Your task to perform on an android device: see tabs open on other devices in the chrome app Image 0: 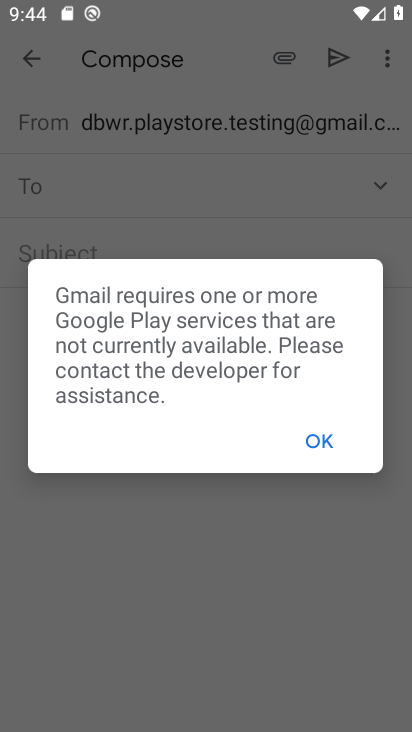
Step 0: click (311, 437)
Your task to perform on an android device: see tabs open on other devices in the chrome app Image 1: 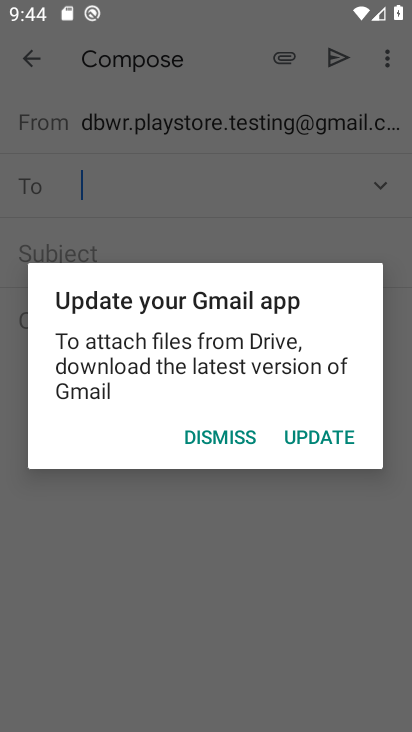
Step 1: press home button
Your task to perform on an android device: see tabs open on other devices in the chrome app Image 2: 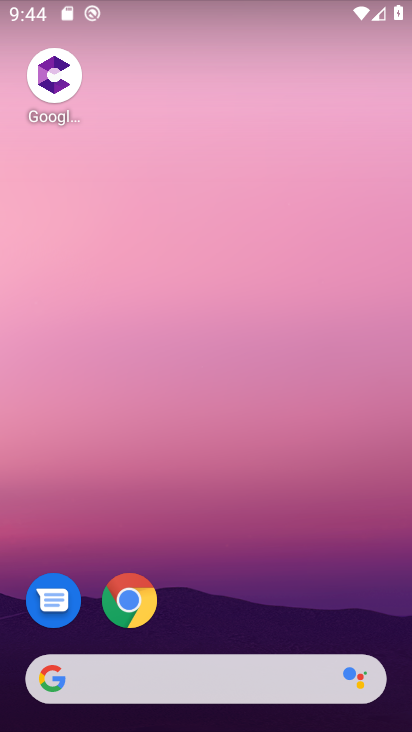
Step 2: click (127, 603)
Your task to perform on an android device: see tabs open on other devices in the chrome app Image 3: 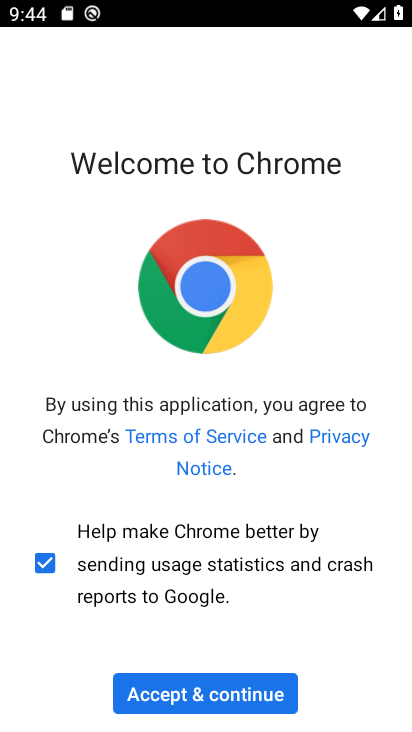
Step 3: click (215, 691)
Your task to perform on an android device: see tabs open on other devices in the chrome app Image 4: 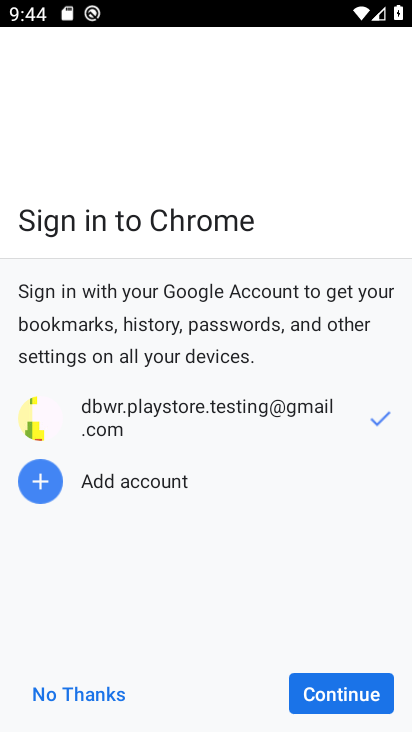
Step 4: click (327, 696)
Your task to perform on an android device: see tabs open on other devices in the chrome app Image 5: 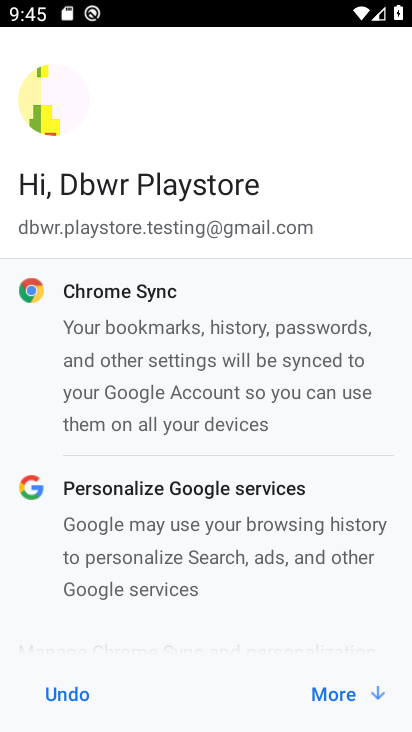
Step 5: click (331, 697)
Your task to perform on an android device: see tabs open on other devices in the chrome app Image 6: 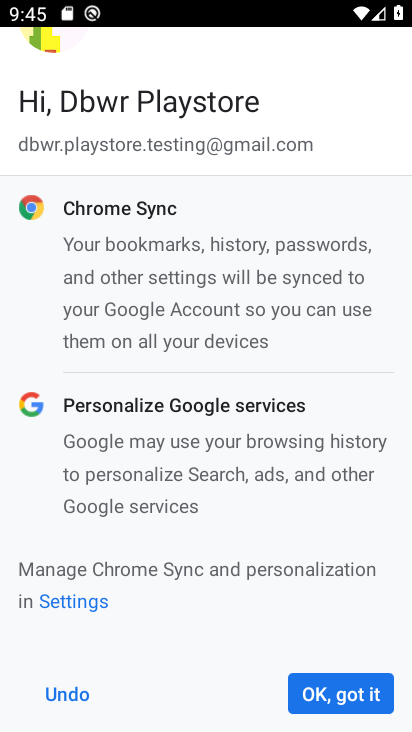
Step 6: click (326, 685)
Your task to perform on an android device: see tabs open on other devices in the chrome app Image 7: 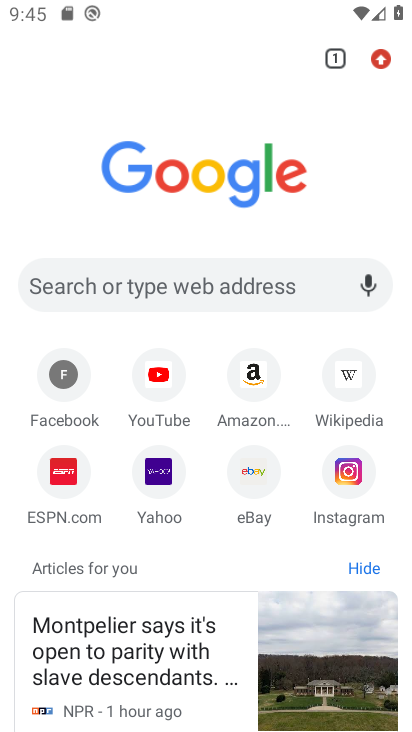
Step 7: click (330, 59)
Your task to perform on an android device: see tabs open on other devices in the chrome app Image 8: 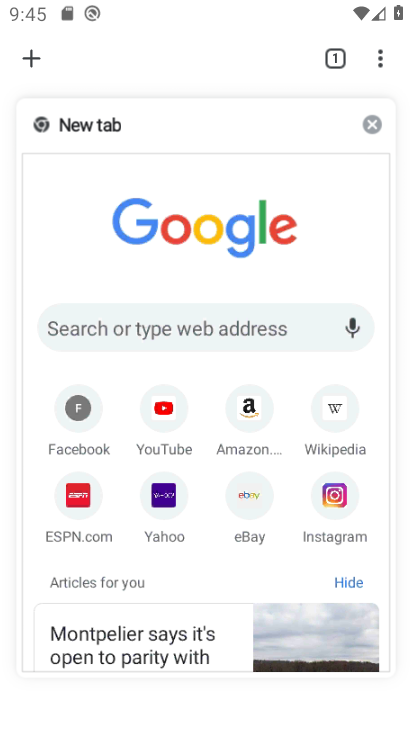
Step 8: task complete